Your task to perform on an android device: Show me productivity apps on the Play Store Image 0: 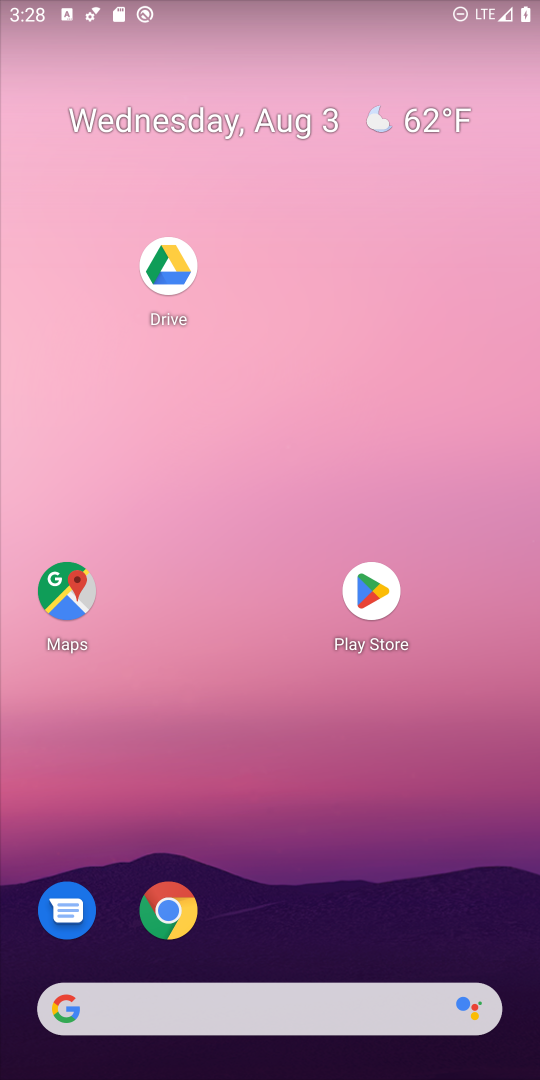
Step 0: drag from (427, 798) to (398, 21)
Your task to perform on an android device: Show me productivity apps on the Play Store Image 1: 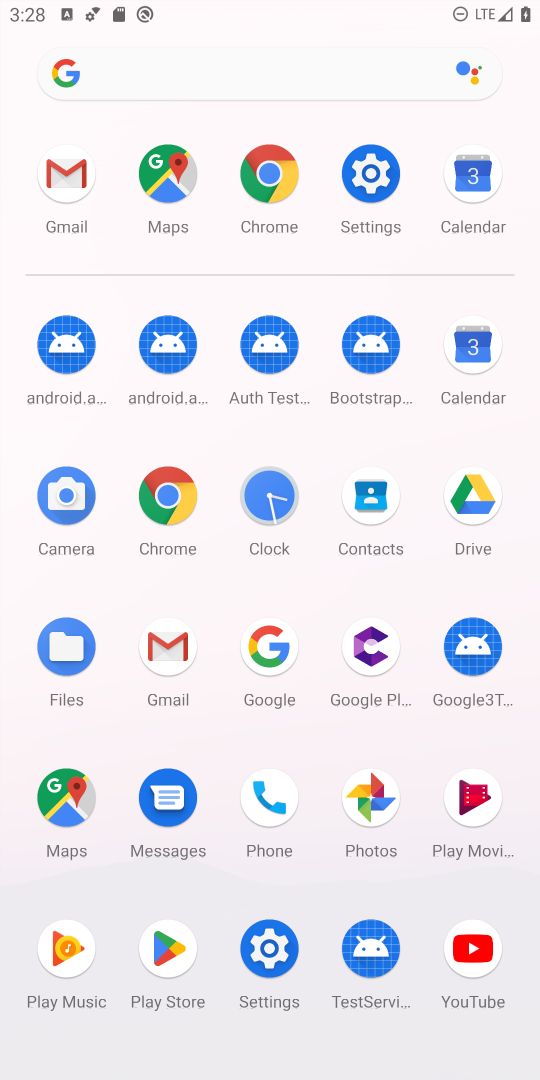
Step 1: click (152, 954)
Your task to perform on an android device: Show me productivity apps on the Play Store Image 2: 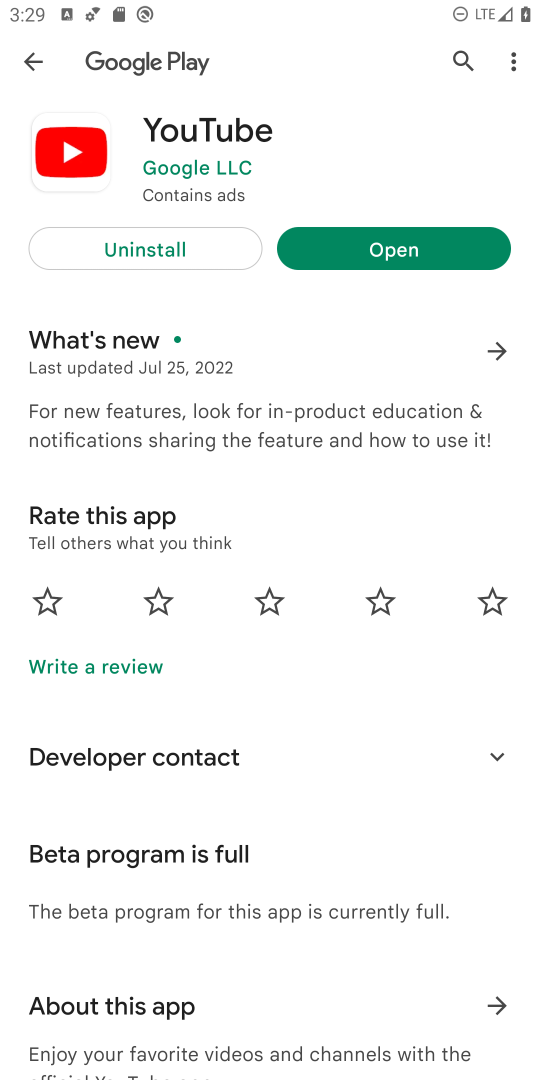
Step 2: press home button
Your task to perform on an android device: Show me productivity apps on the Play Store Image 3: 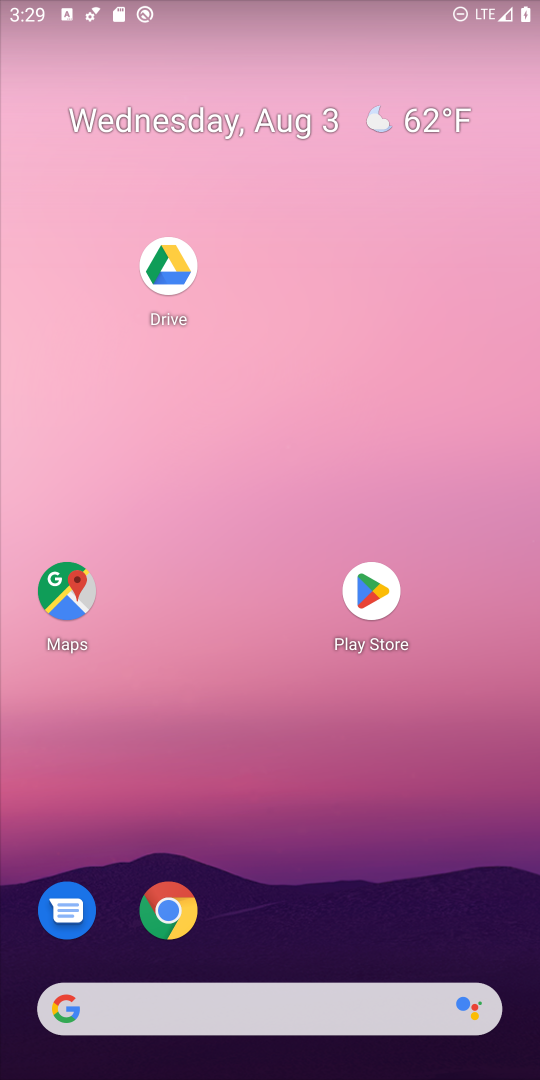
Step 3: drag from (260, 890) to (361, 22)
Your task to perform on an android device: Show me productivity apps on the Play Store Image 4: 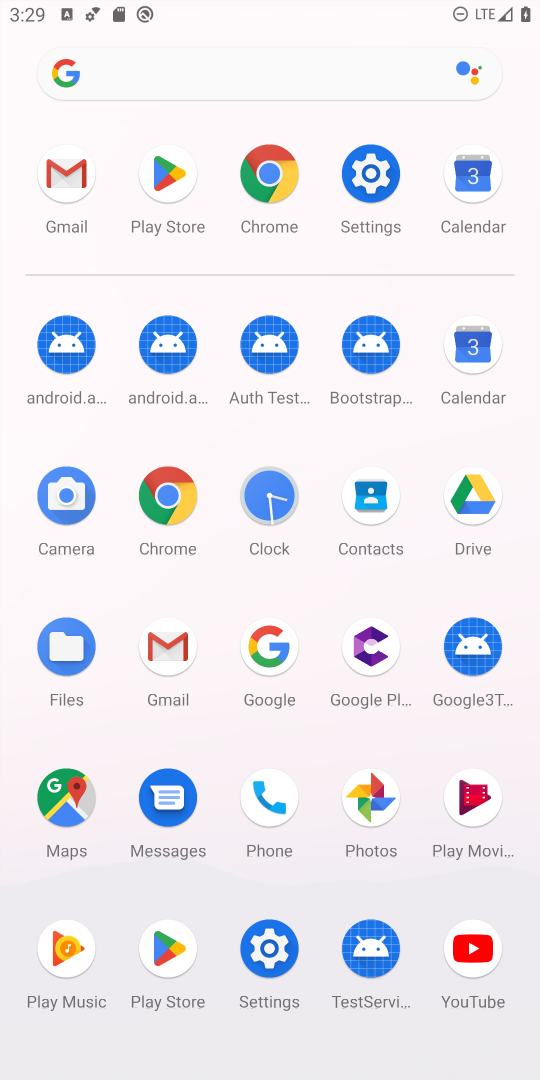
Step 4: click (155, 929)
Your task to perform on an android device: Show me productivity apps on the Play Store Image 5: 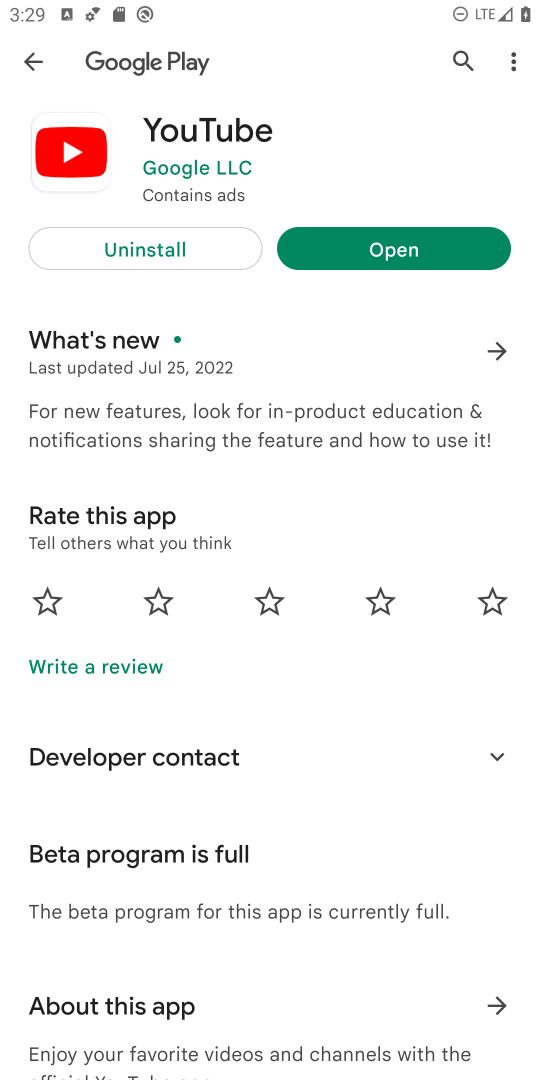
Step 5: press back button
Your task to perform on an android device: Show me productivity apps on the Play Store Image 6: 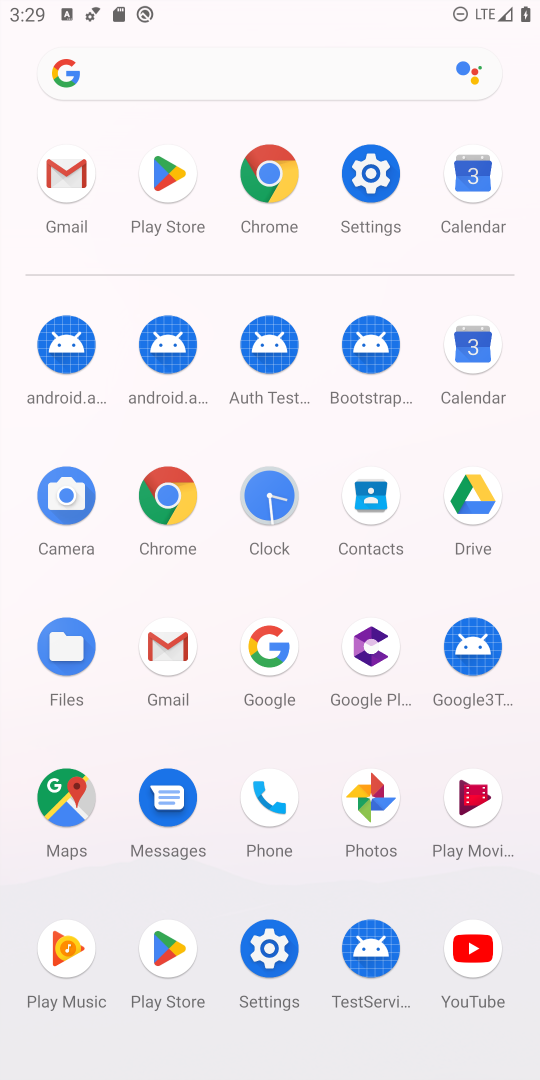
Step 6: click (153, 965)
Your task to perform on an android device: Show me productivity apps on the Play Store Image 7: 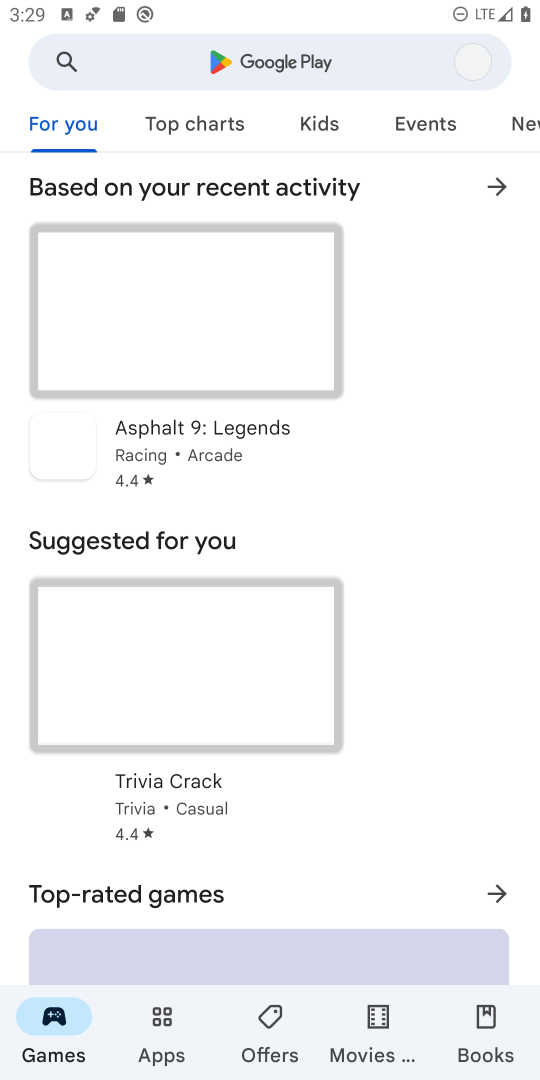
Step 7: click (170, 1013)
Your task to perform on an android device: Show me productivity apps on the Play Store Image 8: 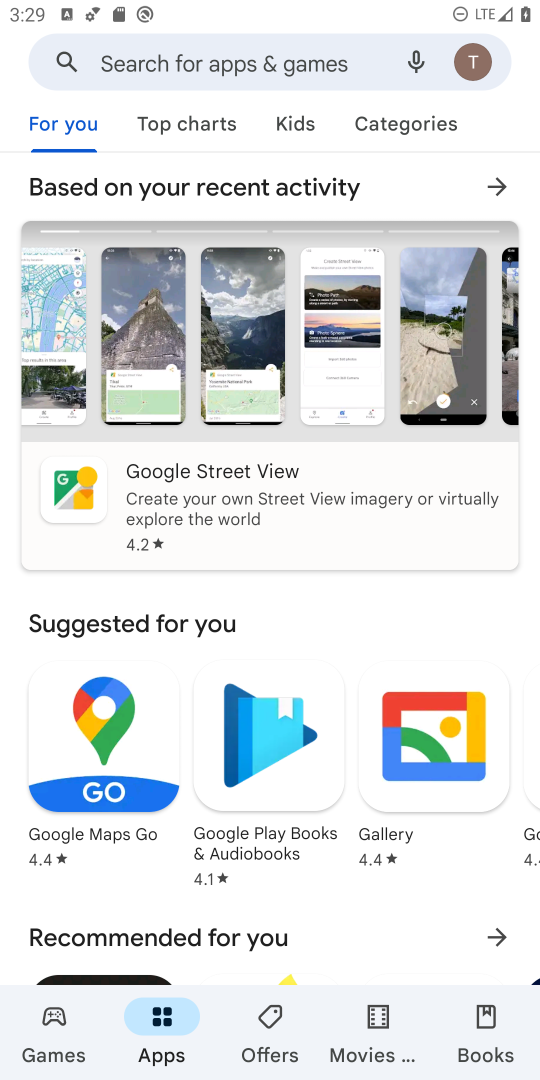
Step 8: drag from (331, 631) to (299, 130)
Your task to perform on an android device: Show me productivity apps on the Play Store Image 9: 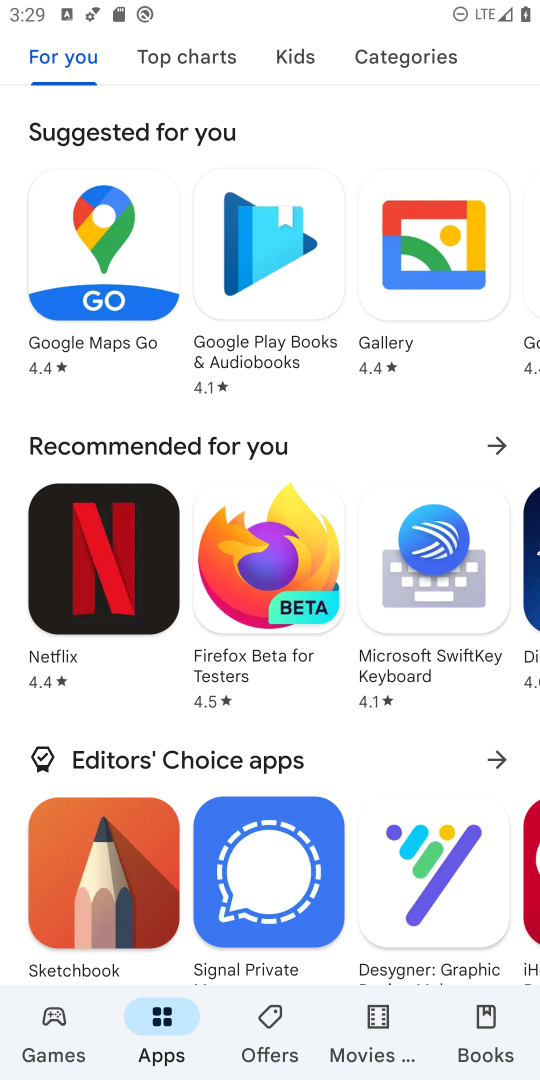
Step 9: drag from (364, 865) to (386, 243)
Your task to perform on an android device: Show me productivity apps on the Play Store Image 10: 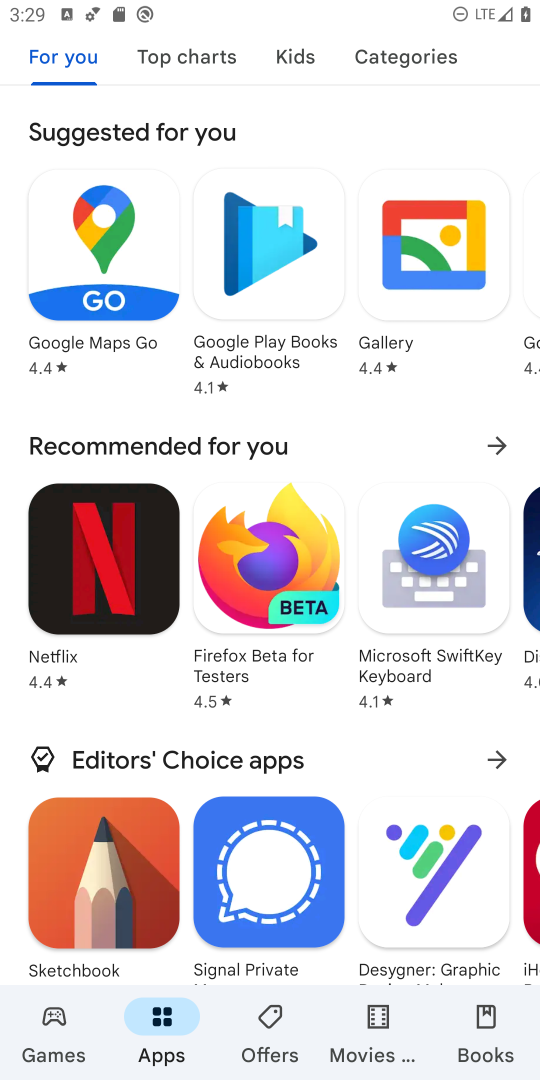
Step 10: drag from (328, 958) to (383, 200)
Your task to perform on an android device: Show me productivity apps on the Play Store Image 11: 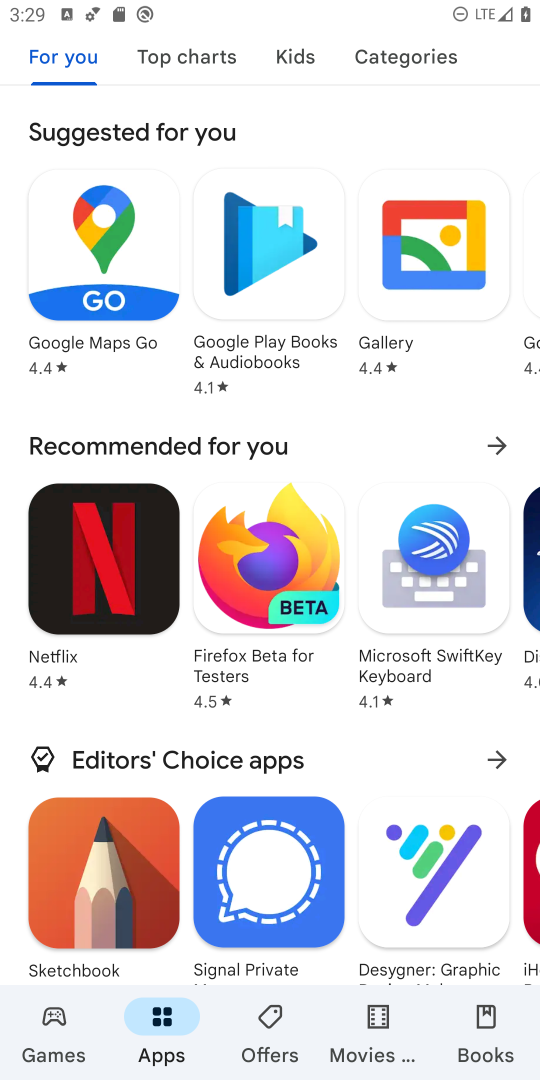
Step 11: drag from (344, 754) to (309, 219)
Your task to perform on an android device: Show me productivity apps on the Play Store Image 12: 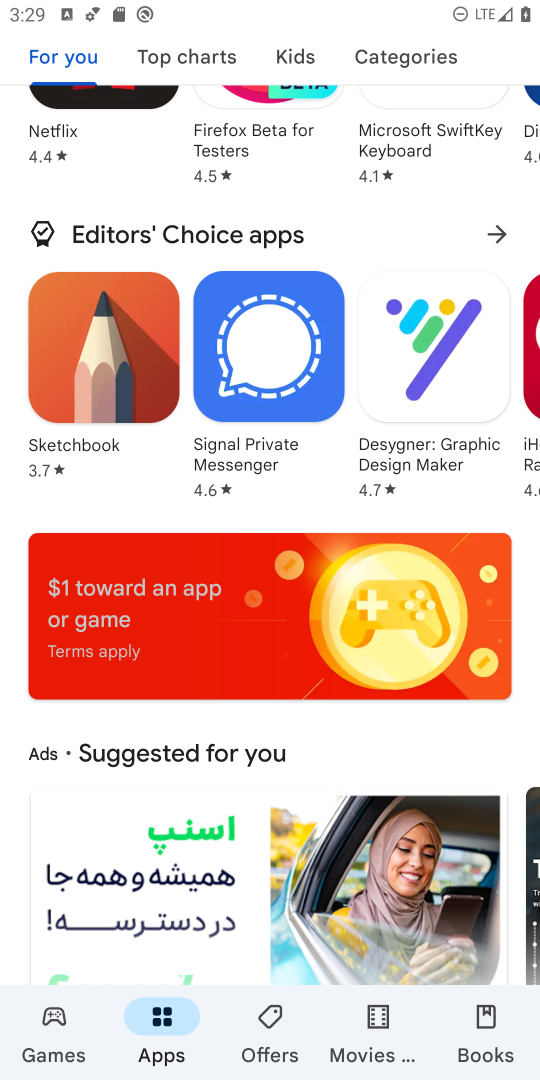
Step 12: drag from (358, 777) to (375, 197)
Your task to perform on an android device: Show me productivity apps on the Play Store Image 13: 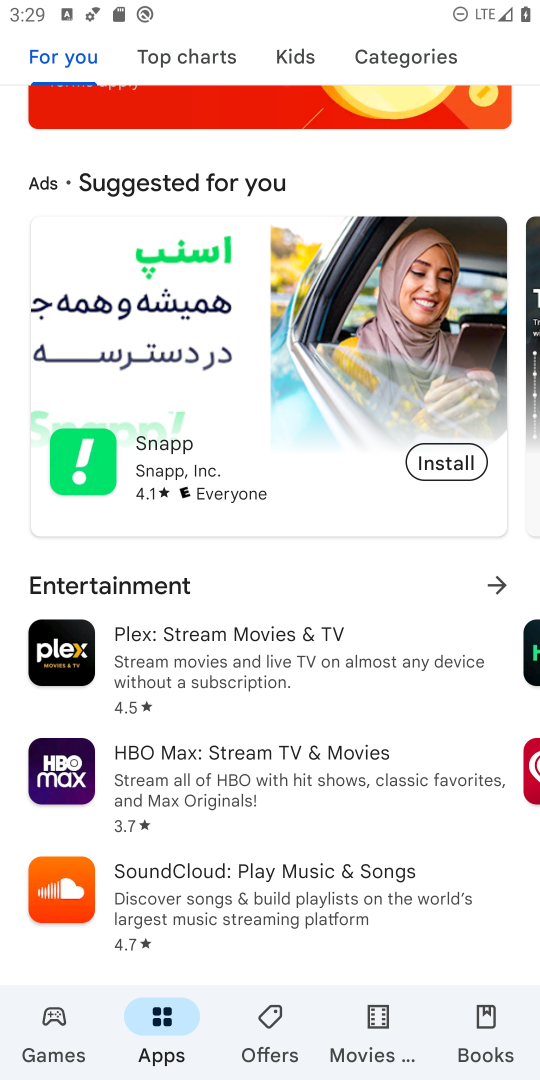
Step 13: drag from (414, 579) to (367, 52)
Your task to perform on an android device: Show me productivity apps on the Play Store Image 14: 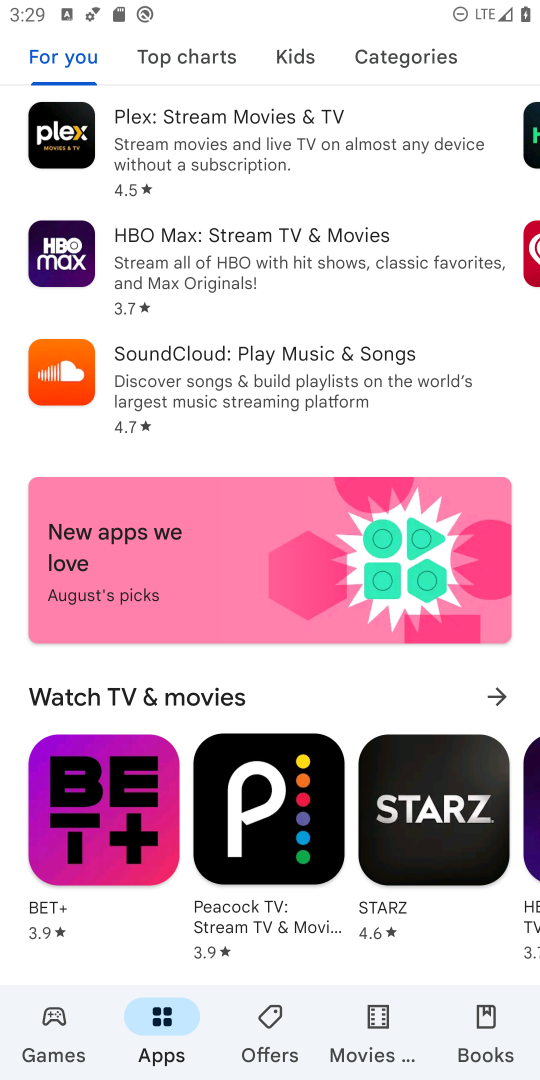
Step 14: drag from (352, 678) to (303, 15)
Your task to perform on an android device: Show me productivity apps on the Play Store Image 15: 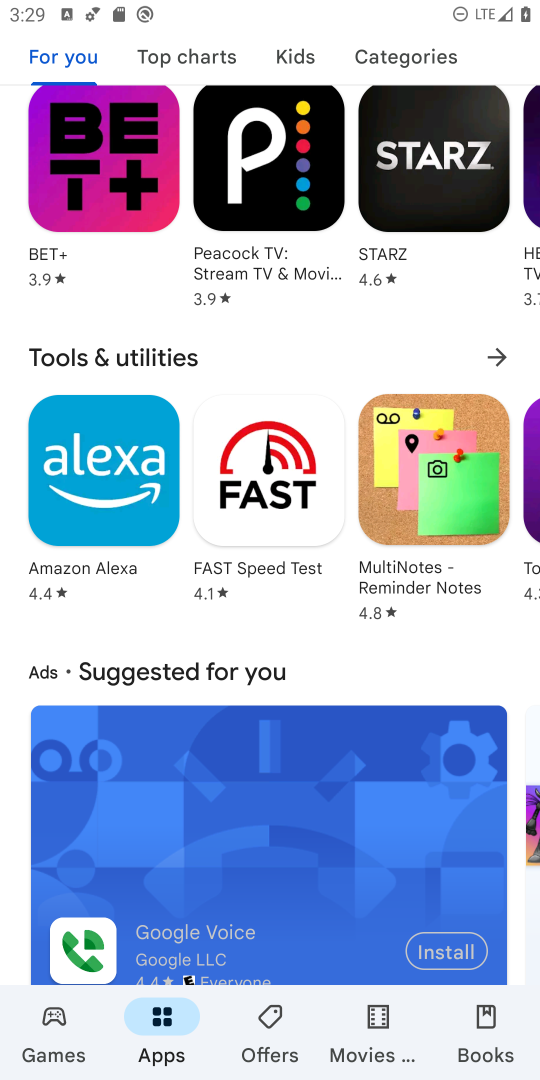
Step 15: drag from (433, 618) to (398, 10)
Your task to perform on an android device: Show me productivity apps on the Play Store Image 16: 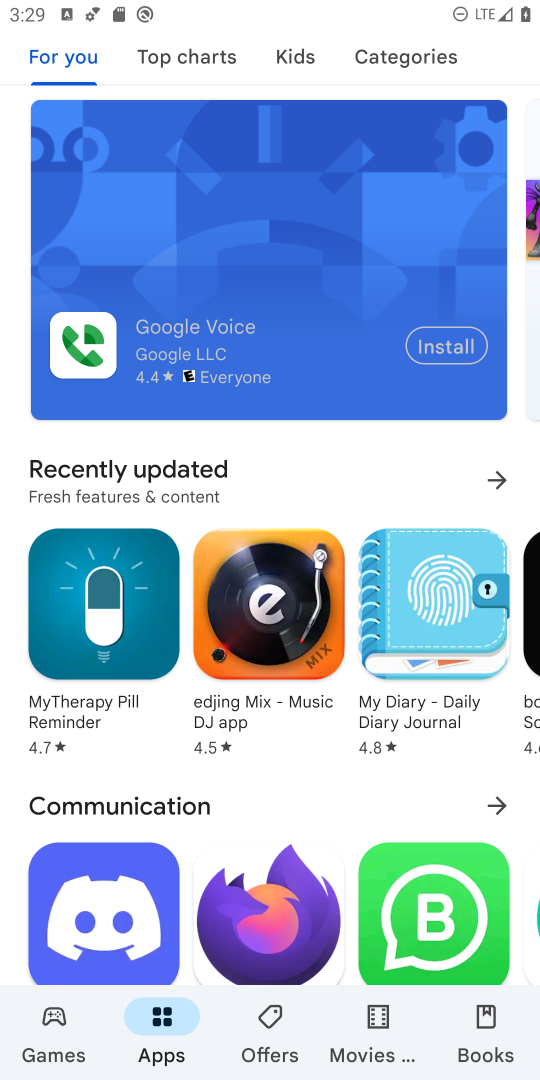
Step 16: drag from (323, 793) to (308, 44)
Your task to perform on an android device: Show me productivity apps on the Play Store Image 17: 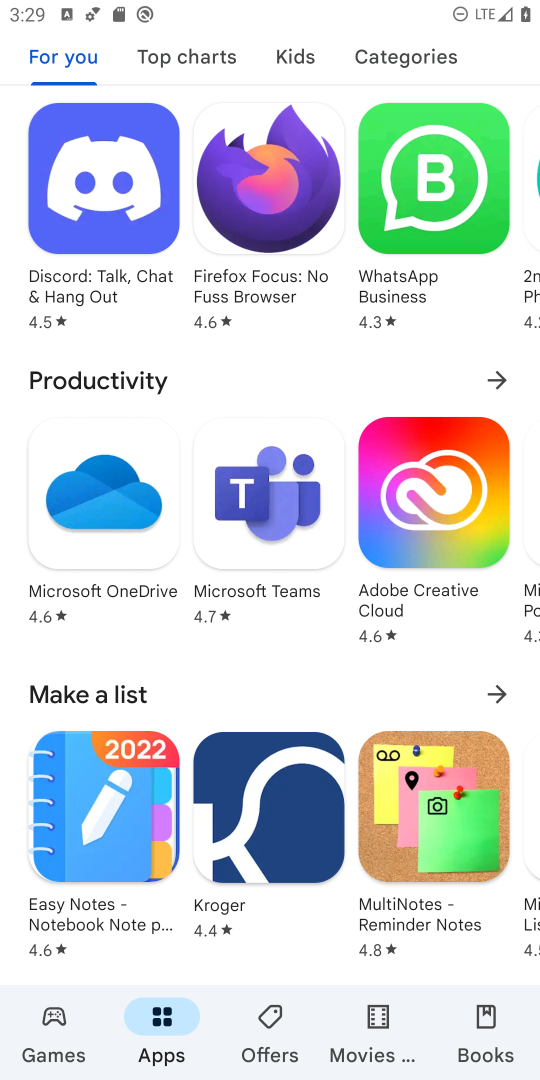
Step 17: click (491, 382)
Your task to perform on an android device: Show me productivity apps on the Play Store Image 18: 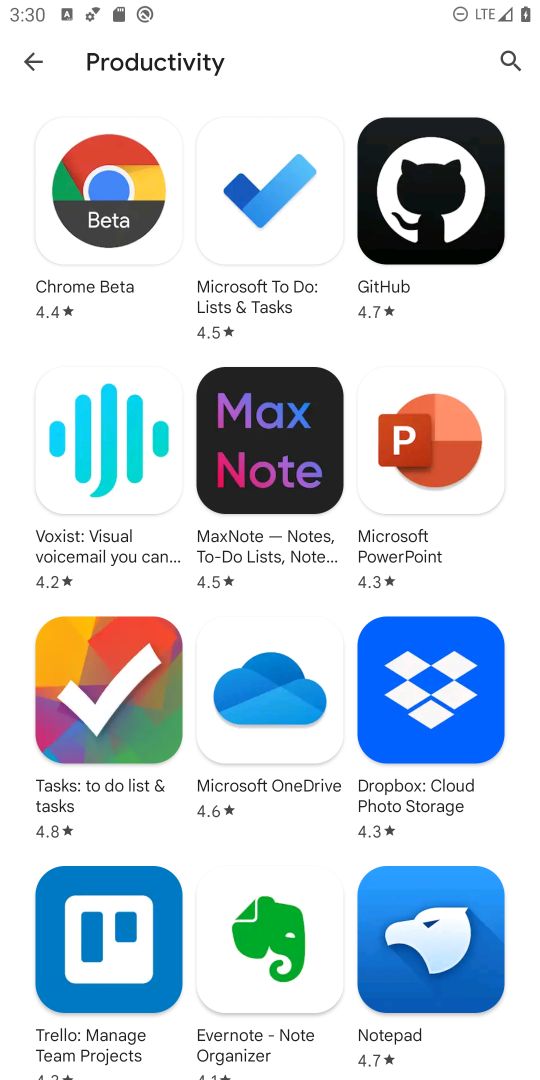
Step 18: task complete